Your task to perform on an android device: What's on my calendar tomorrow? Image 0: 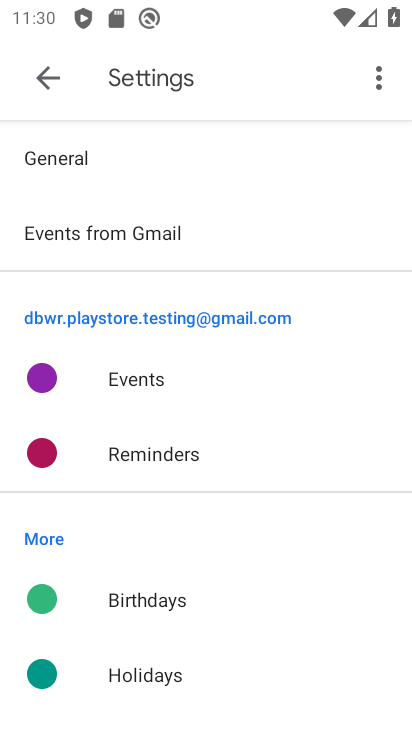
Step 0: press home button
Your task to perform on an android device: What's on my calendar tomorrow? Image 1: 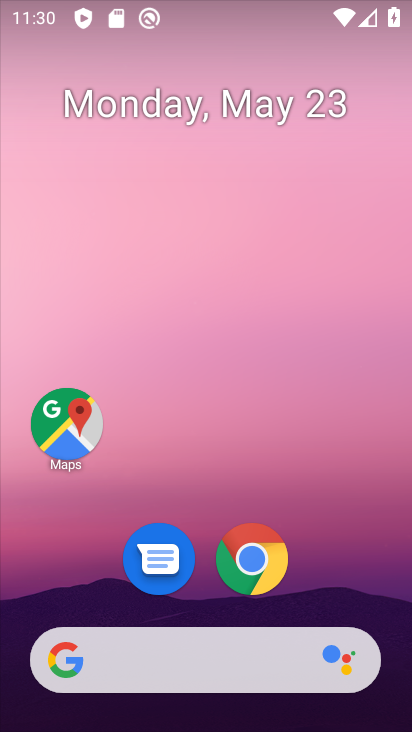
Step 1: drag from (396, 696) to (334, 93)
Your task to perform on an android device: What's on my calendar tomorrow? Image 2: 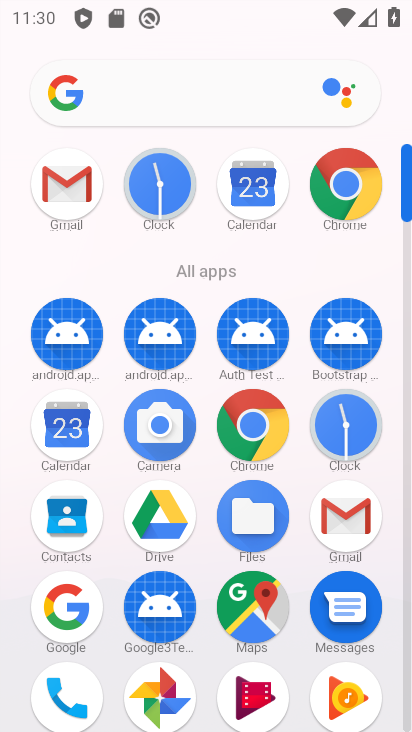
Step 2: click (63, 421)
Your task to perform on an android device: What's on my calendar tomorrow? Image 3: 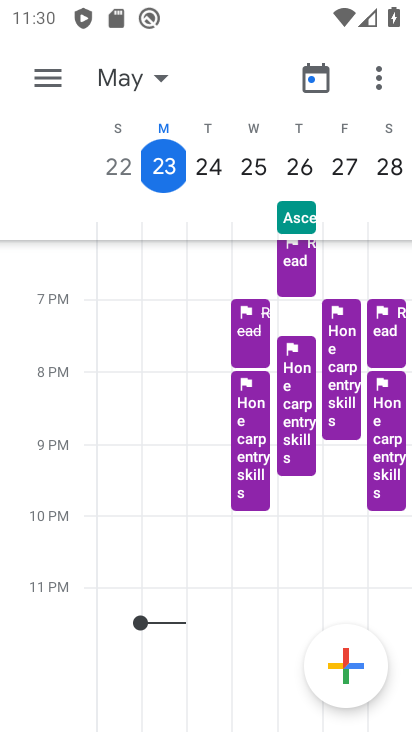
Step 3: click (156, 76)
Your task to perform on an android device: What's on my calendar tomorrow? Image 4: 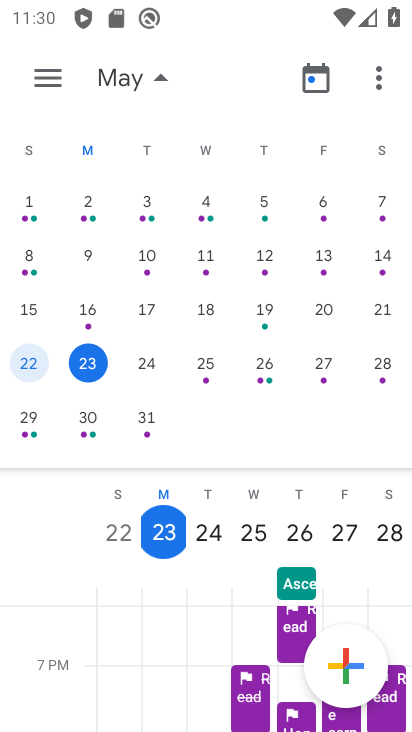
Step 4: click (150, 361)
Your task to perform on an android device: What's on my calendar tomorrow? Image 5: 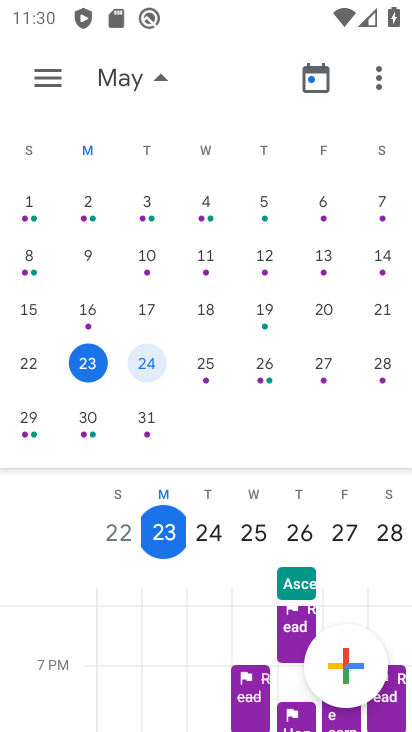
Step 5: click (64, 72)
Your task to perform on an android device: What's on my calendar tomorrow? Image 6: 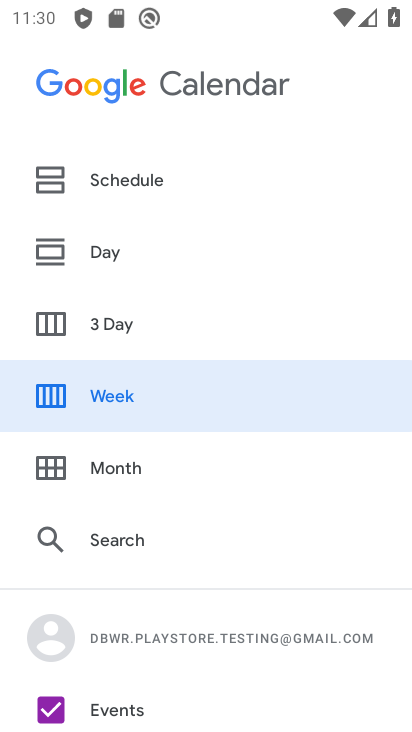
Step 6: click (93, 247)
Your task to perform on an android device: What's on my calendar tomorrow? Image 7: 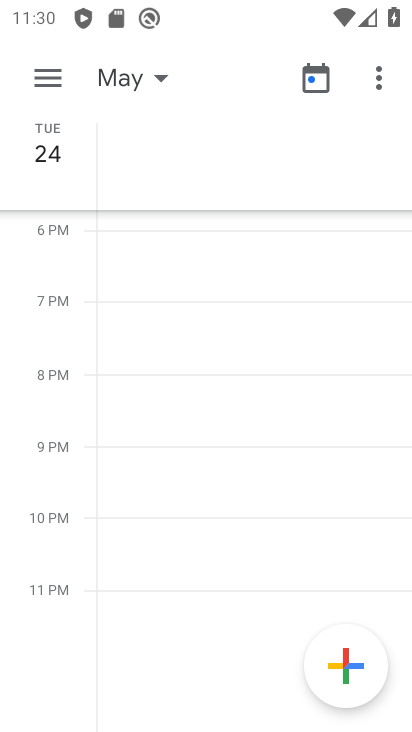
Step 7: click (159, 75)
Your task to perform on an android device: What's on my calendar tomorrow? Image 8: 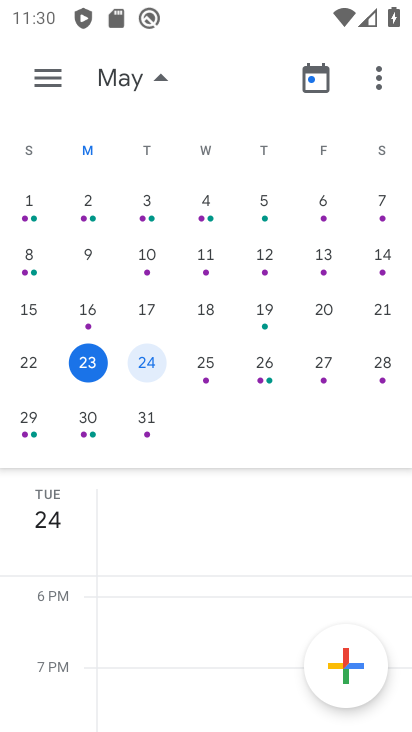
Step 8: click (147, 358)
Your task to perform on an android device: What's on my calendar tomorrow? Image 9: 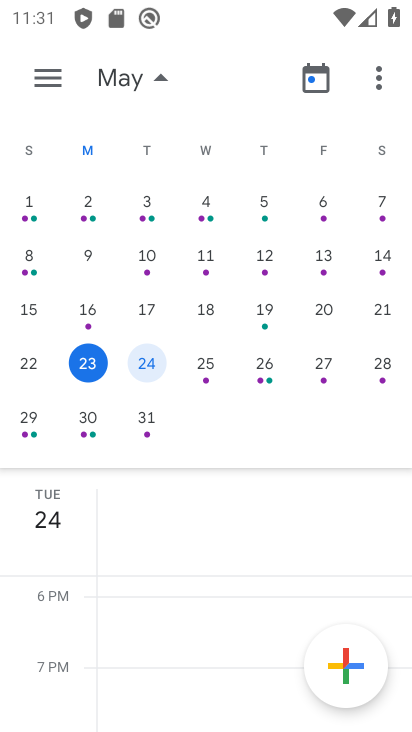
Step 9: click (150, 359)
Your task to perform on an android device: What's on my calendar tomorrow? Image 10: 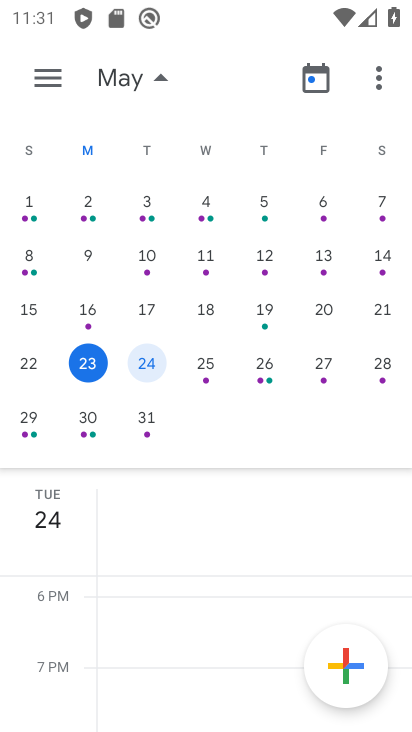
Step 10: task complete